Your task to perform on an android device: Go to Wikipedia Image 0: 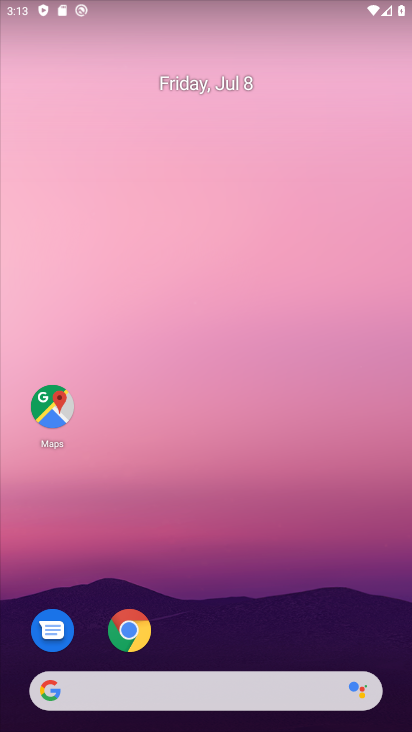
Step 0: click (130, 632)
Your task to perform on an android device: Go to Wikipedia Image 1: 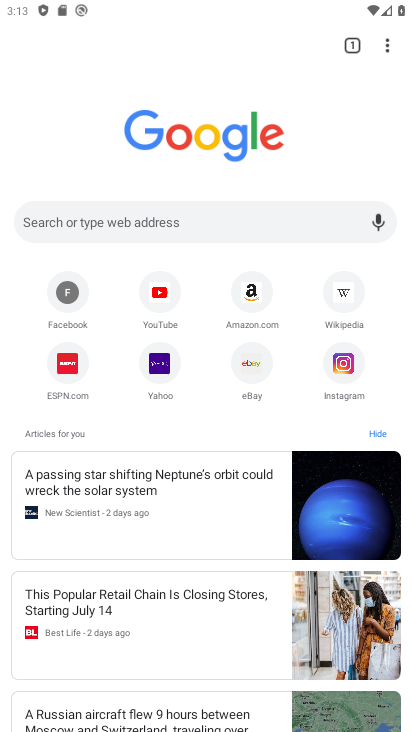
Step 1: click (344, 291)
Your task to perform on an android device: Go to Wikipedia Image 2: 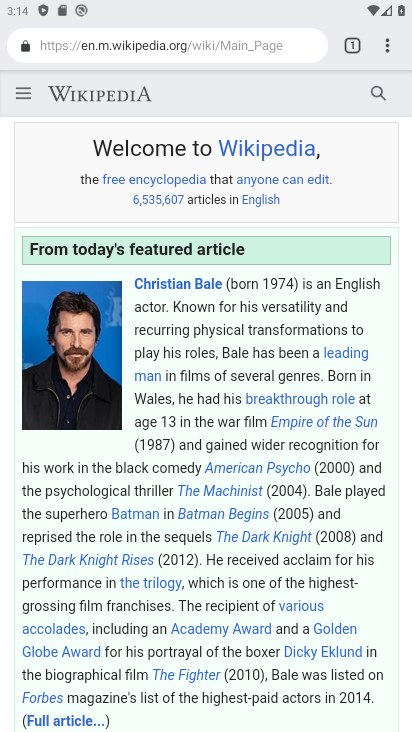
Step 2: task complete